Your task to perform on an android device: turn pop-ups off in chrome Image 0: 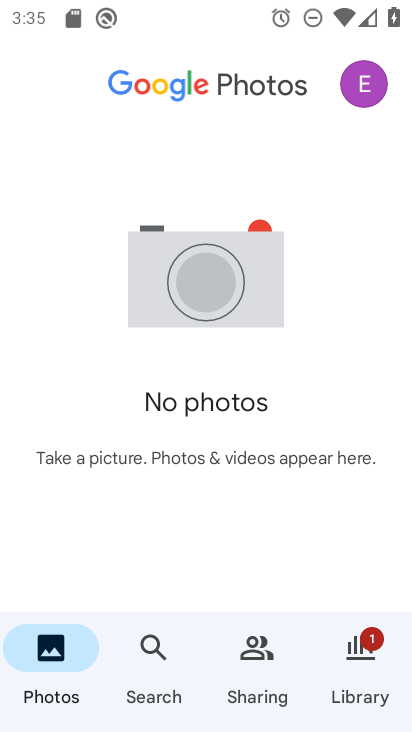
Step 0: press home button
Your task to perform on an android device: turn pop-ups off in chrome Image 1: 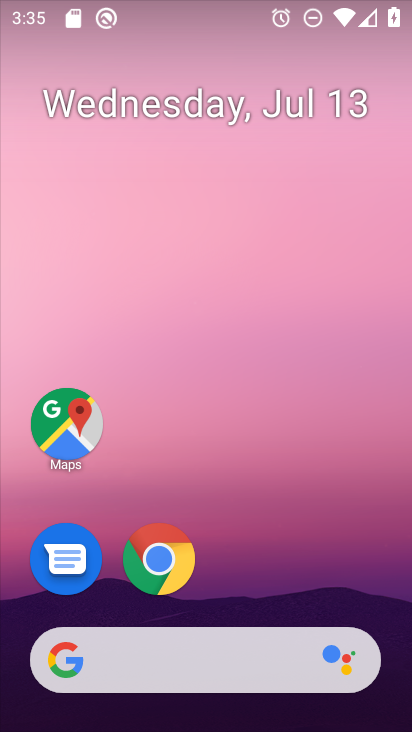
Step 1: drag from (359, 579) to (353, 233)
Your task to perform on an android device: turn pop-ups off in chrome Image 2: 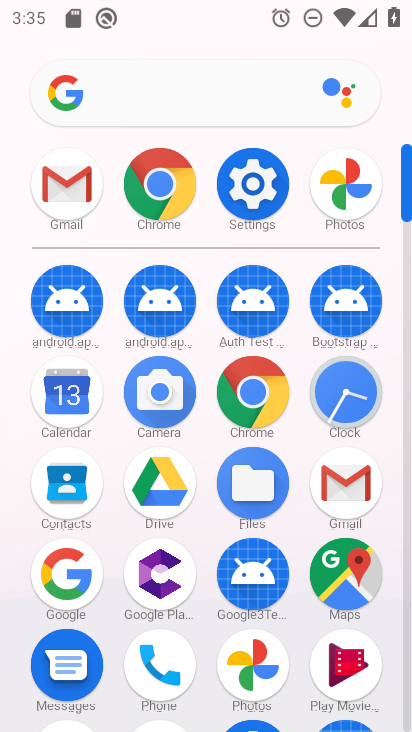
Step 2: click (273, 384)
Your task to perform on an android device: turn pop-ups off in chrome Image 3: 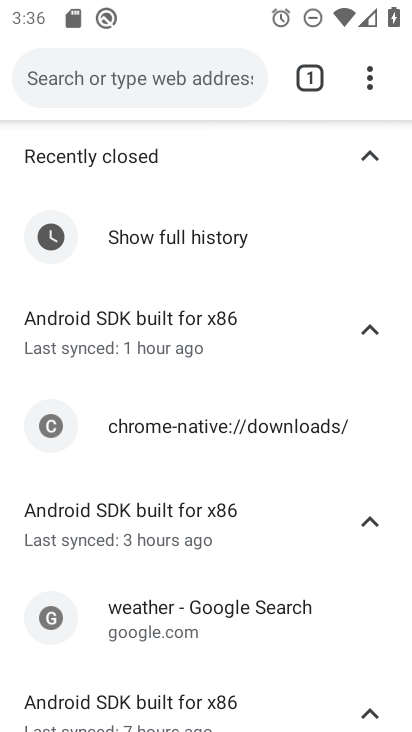
Step 3: click (369, 84)
Your task to perform on an android device: turn pop-ups off in chrome Image 4: 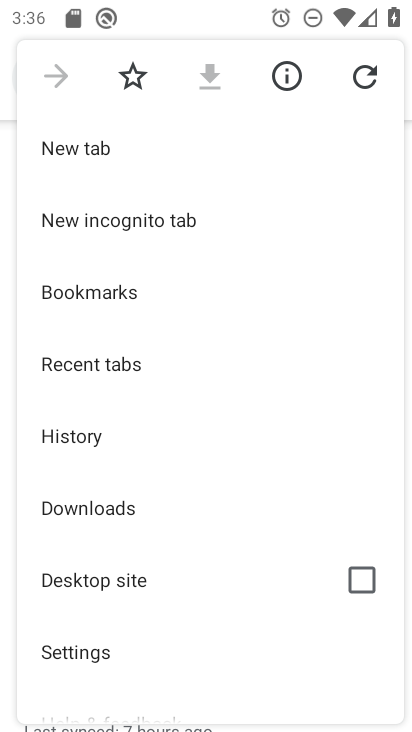
Step 4: drag from (261, 433) to (271, 356)
Your task to perform on an android device: turn pop-ups off in chrome Image 5: 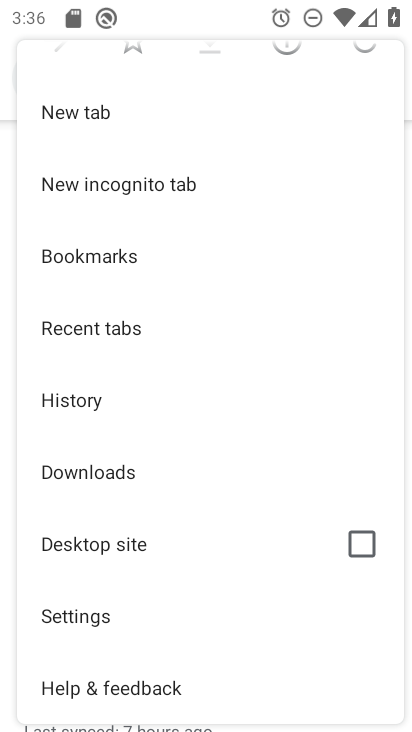
Step 5: drag from (248, 540) to (247, 394)
Your task to perform on an android device: turn pop-ups off in chrome Image 6: 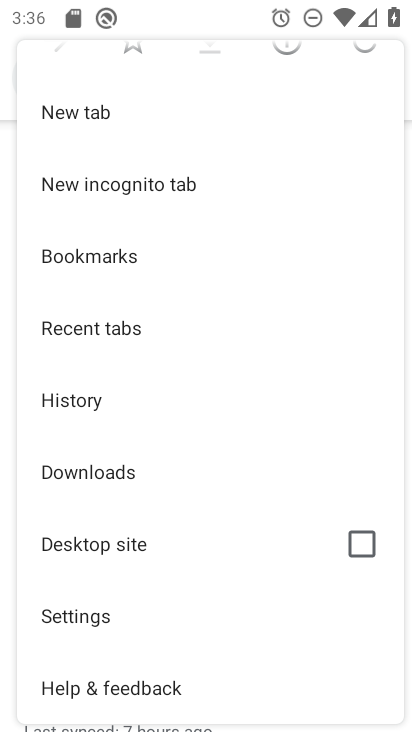
Step 6: click (128, 620)
Your task to perform on an android device: turn pop-ups off in chrome Image 7: 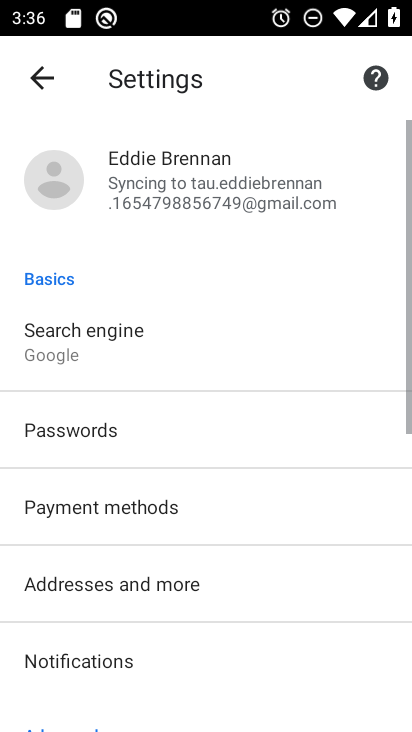
Step 7: drag from (272, 553) to (286, 468)
Your task to perform on an android device: turn pop-ups off in chrome Image 8: 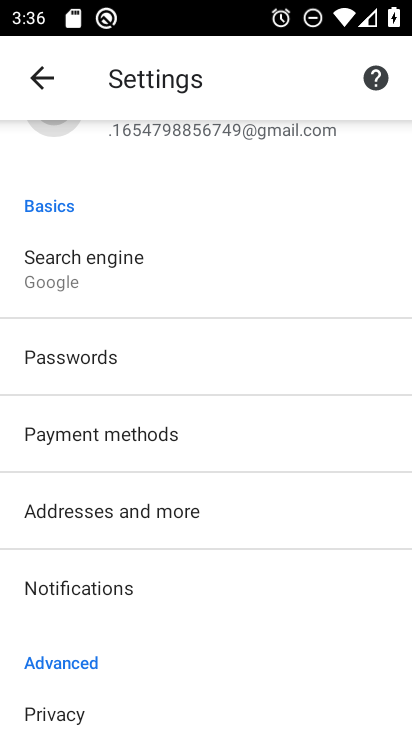
Step 8: drag from (296, 578) to (309, 484)
Your task to perform on an android device: turn pop-ups off in chrome Image 9: 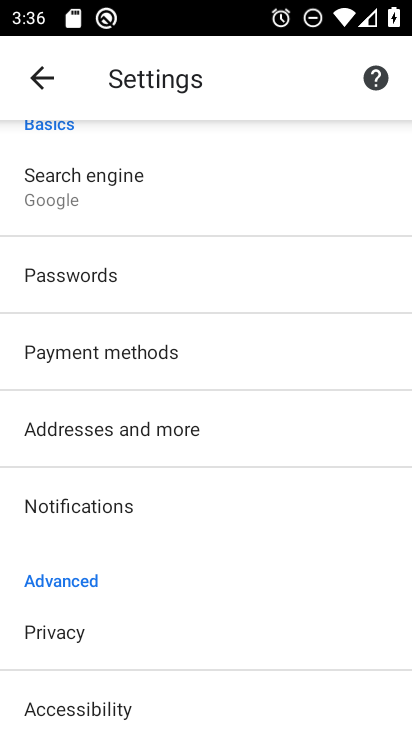
Step 9: drag from (311, 550) to (331, 430)
Your task to perform on an android device: turn pop-ups off in chrome Image 10: 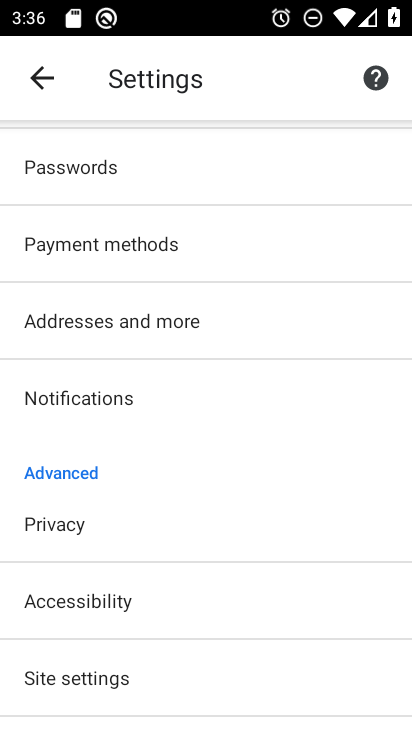
Step 10: drag from (322, 524) to (331, 441)
Your task to perform on an android device: turn pop-ups off in chrome Image 11: 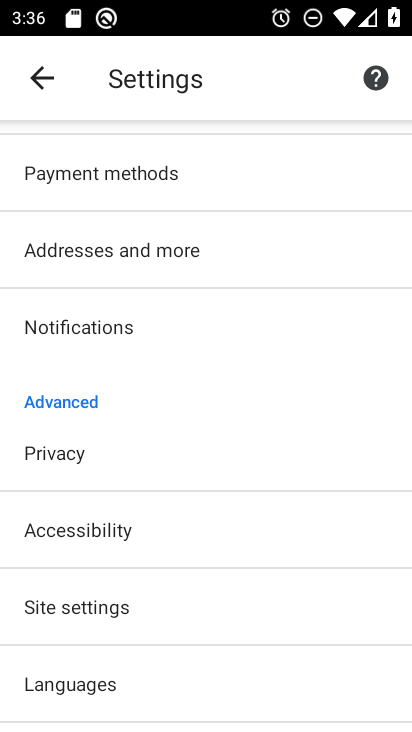
Step 11: drag from (332, 541) to (340, 439)
Your task to perform on an android device: turn pop-ups off in chrome Image 12: 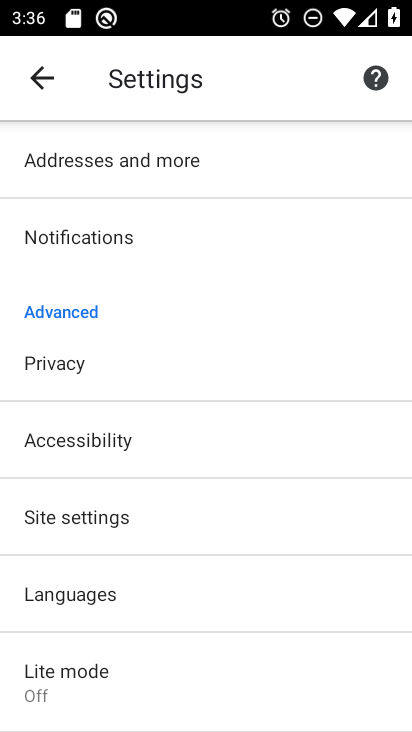
Step 12: drag from (330, 583) to (332, 474)
Your task to perform on an android device: turn pop-ups off in chrome Image 13: 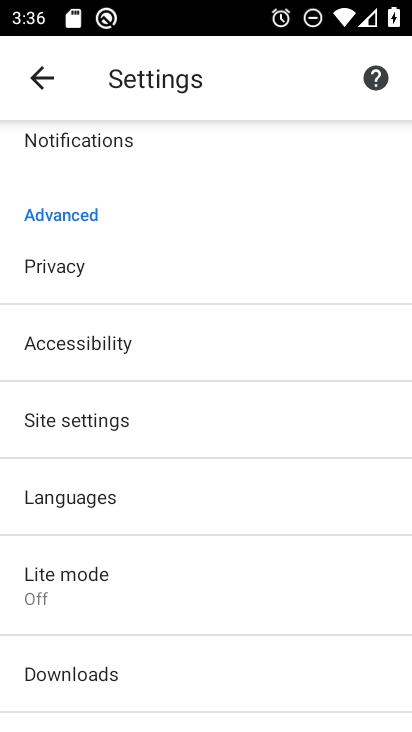
Step 13: drag from (308, 554) to (313, 442)
Your task to perform on an android device: turn pop-ups off in chrome Image 14: 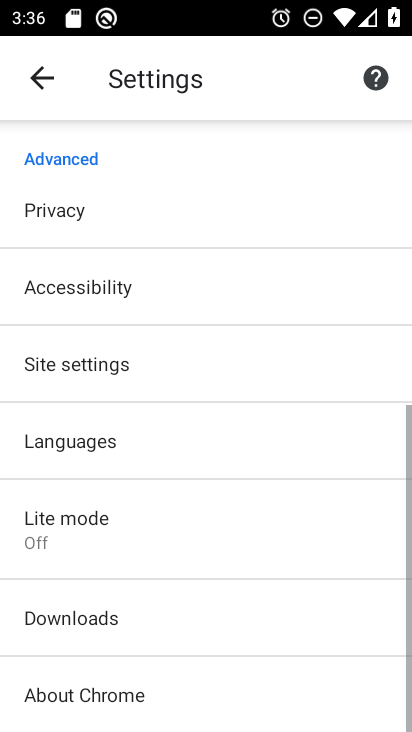
Step 14: click (210, 361)
Your task to perform on an android device: turn pop-ups off in chrome Image 15: 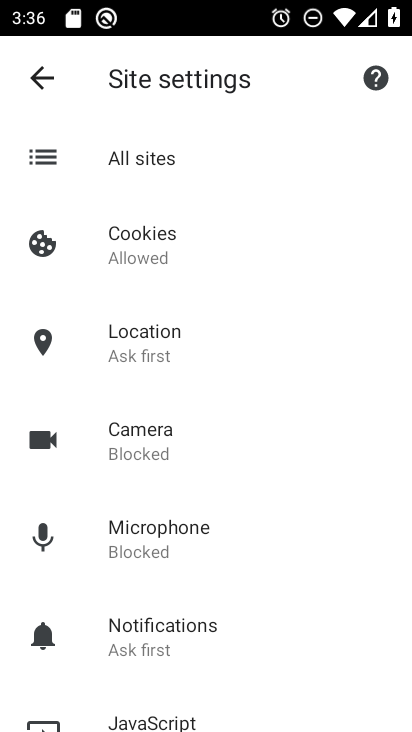
Step 15: drag from (259, 530) to (263, 422)
Your task to perform on an android device: turn pop-ups off in chrome Image 16: 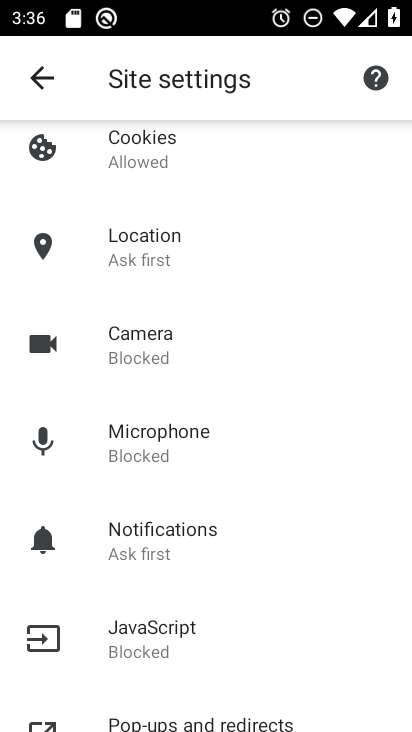
Step 16: drag from (267, 562) to (278, 348)
Your task to perform on an android device: turn pop-ups off in chrome Image 17: 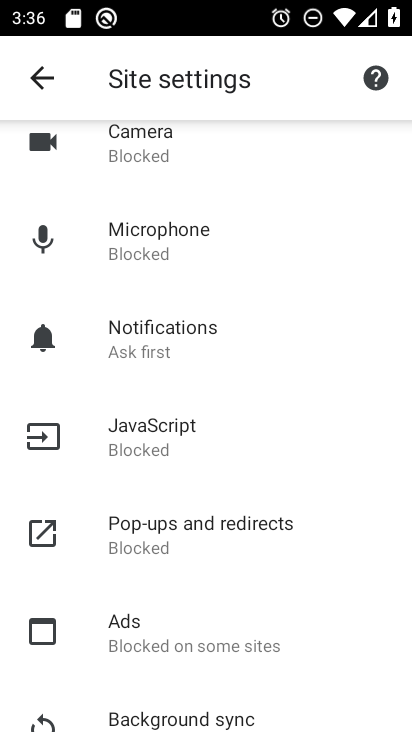
Step 17: drag from (303, 574) to (303, 441)
Your task to perform on an android device: turn pop-ups off in chrome Image 18: 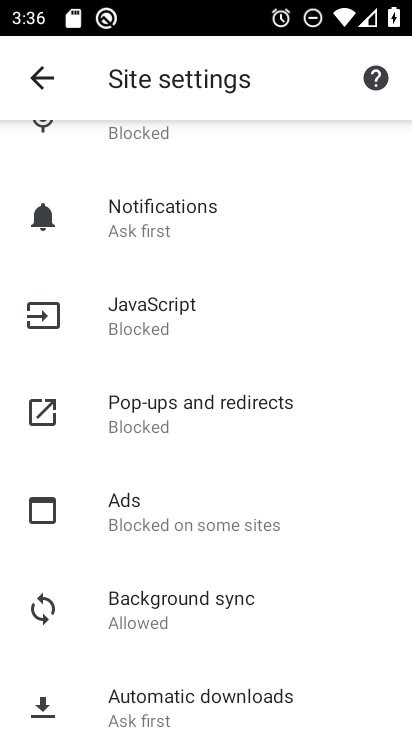
Step 18: click (222, 407)
Your task to perform on an android device: turn pop-ups off in chrome Image 19: 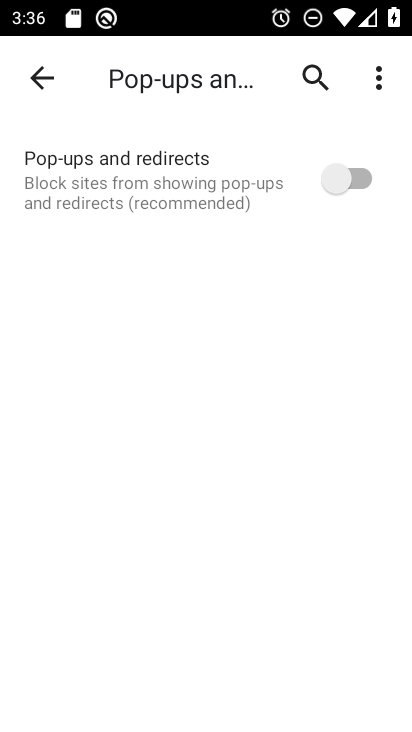
Step 19: task complete